Your task to perform on an android device: Open Google Maps Image 0: 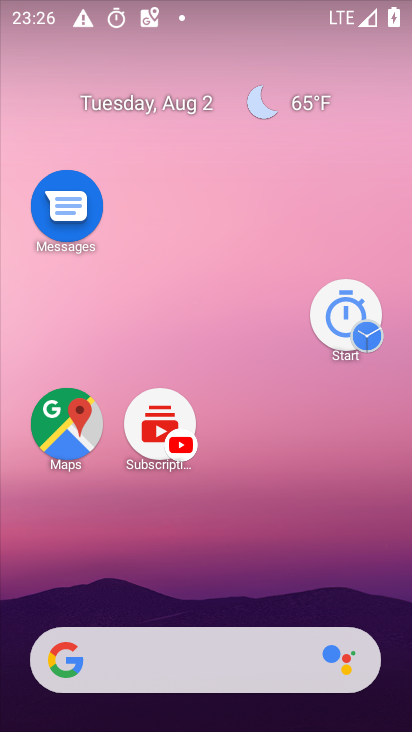
Step 0: drag from (167, 490) to (152, 280)
Your task to perform on an android device: Open Google Maps Image 1: 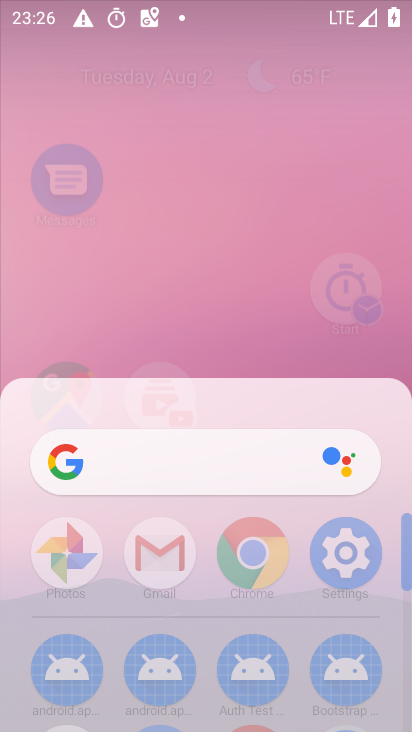
Step 1: drag from (219, 467) to (216, 270)
Your task to perform on an android device: Open Google Maps Image 2: 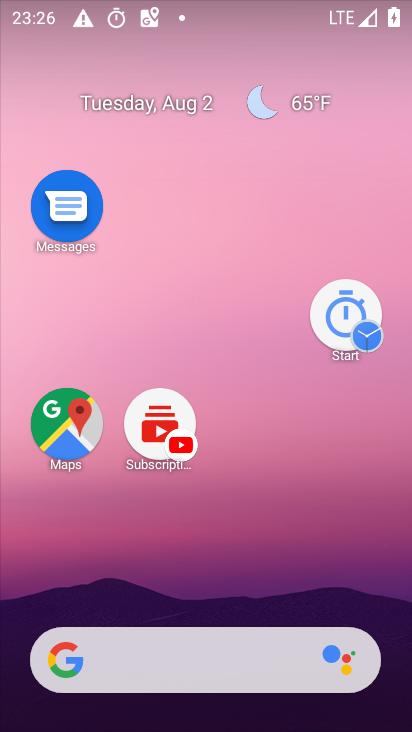
Step 2: drag from (188, 400) to (166, 253)
Your task to perform on an android device: Open Google Maps Image 3: 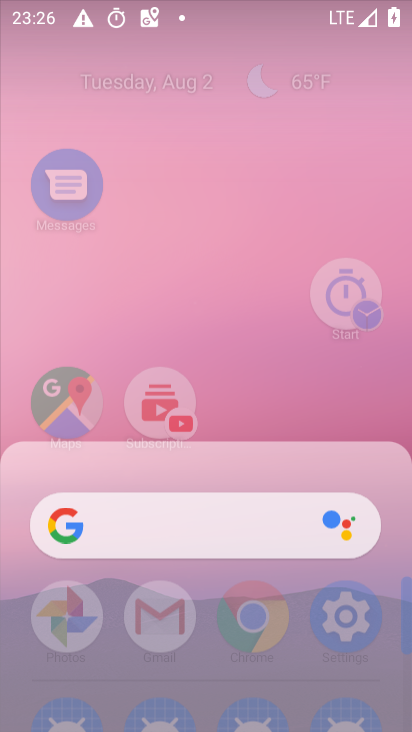
Step 3: drag from (166, 399) to (137, 107)
Your task to perform on an android device: Open Google Maps Image 4: 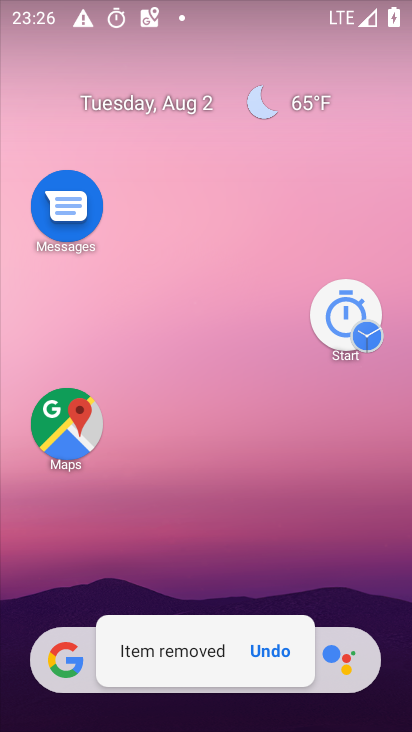
Step 4: click (82, 426)
Your task to perform on an android device: Open Google Maps Image 5: 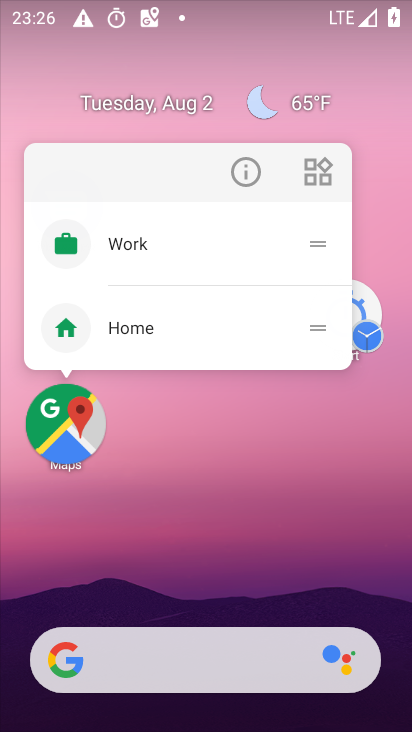
Step 5: click (77, 433)
Your task to perform on an android device: Open Google Maps Image 6: 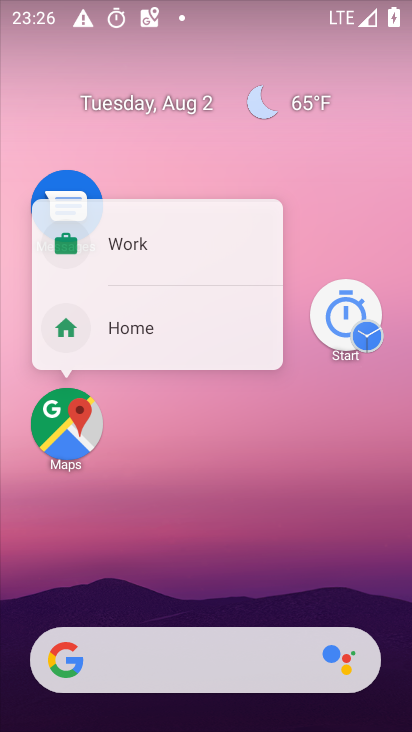
Step 6: click (76, 434)
Your task to perform on an android device: Open Google Maps Image 7: 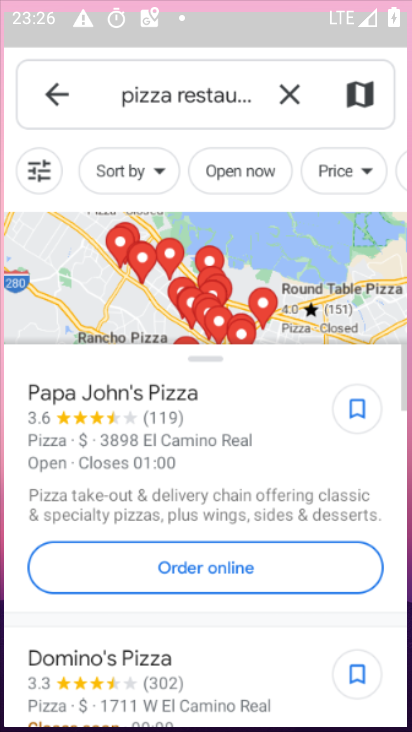
Step 7: click (76, 433)
Your task to perform on an android device: Open Google Maps Image 8: 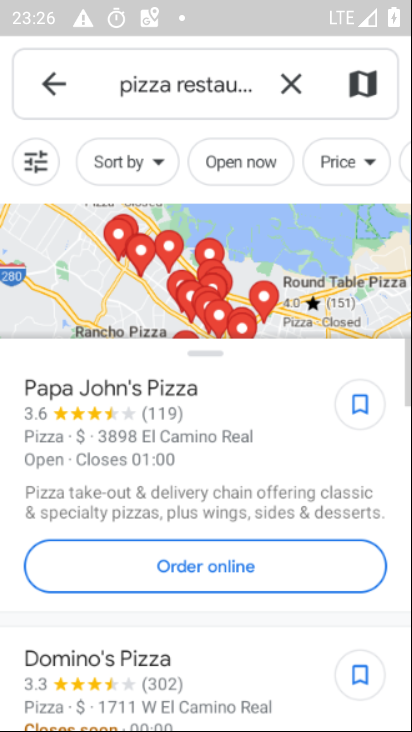
Step 8: click (77, 434)
Your task to perform on an android device: Open Google Maps Image 9: 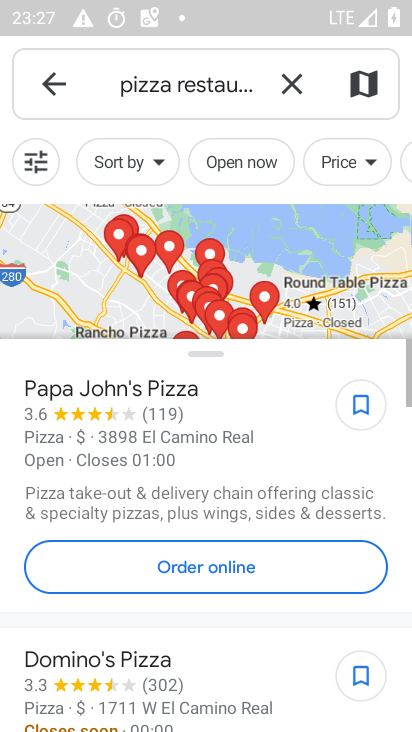
Step 9: task complete